Your task to perform on an android device: set default search engine in the chrome app Image 0: 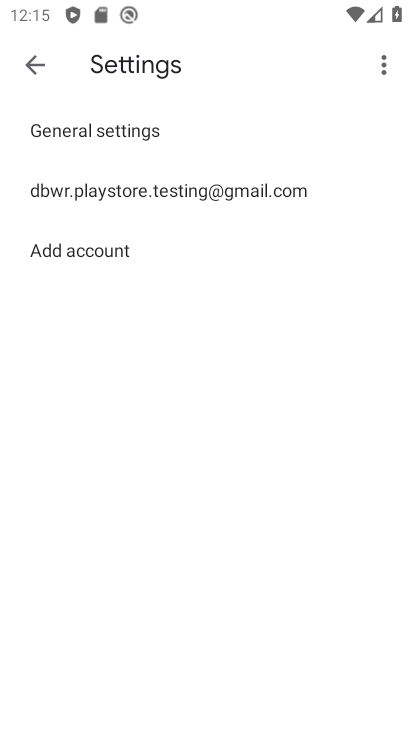
Step 0: press home button
Your task to perform on an android device: set default search engine in the chrome app Image 1: 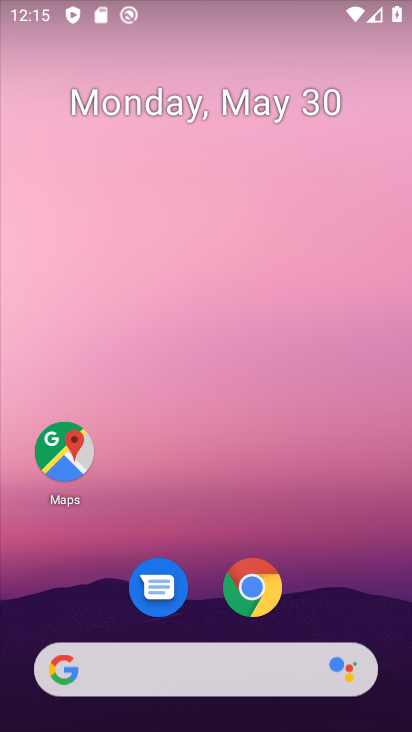
Step 1: click (242, 580)
Your task to perform on an android device: set default search engine in the chrome app Image 2: 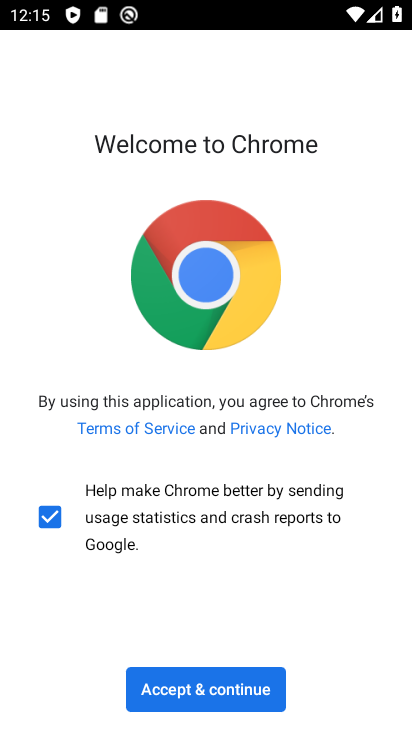
Step 2: click (228, 686)
Your task to perform on an android device: set default search engine in the chrome app Image 3: 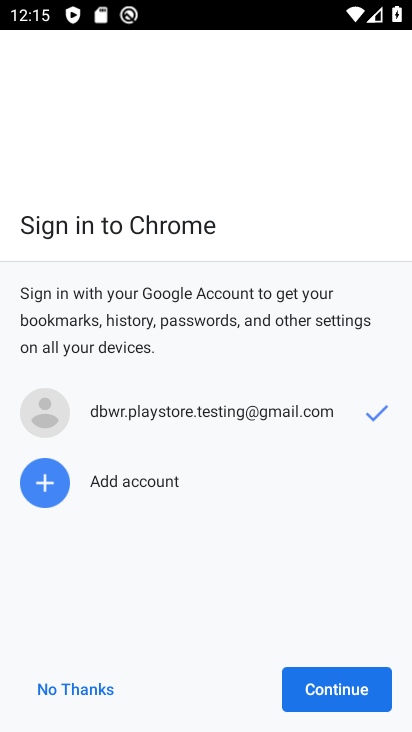
Step 3: click (324, 696)
Your task to perform on an android device: set default search engine in the chrome app Image 4: 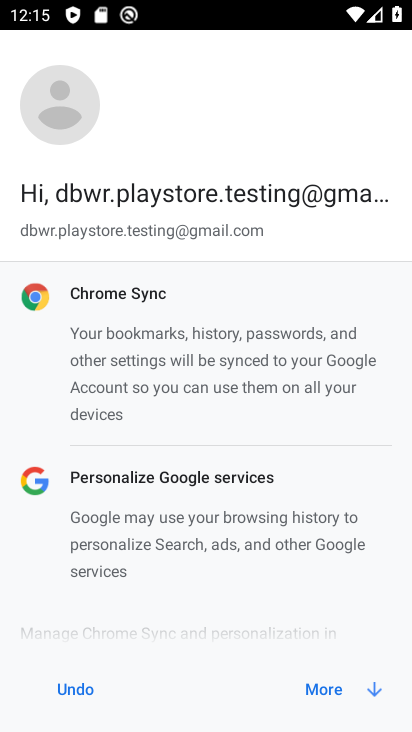
Step 4: click (324, 696)
Your task to perform on an android device: set default search engine in the chrome app Image 5: 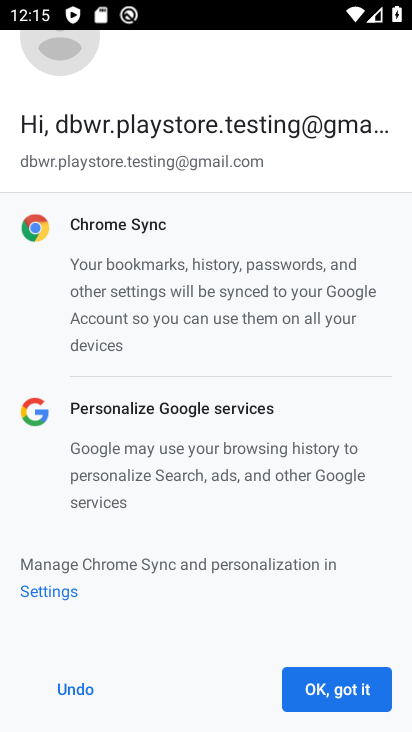
Step 5: click (324, 696)
Your task to perform on an android device: set default search engine in the chrome app Image 6: 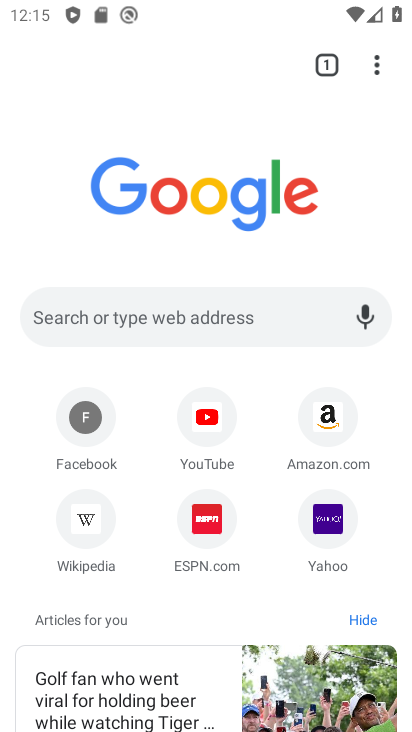
Step 6: click (379, 58)
Your task to perform on an android device: set default search engine in the chrome app Image 7: 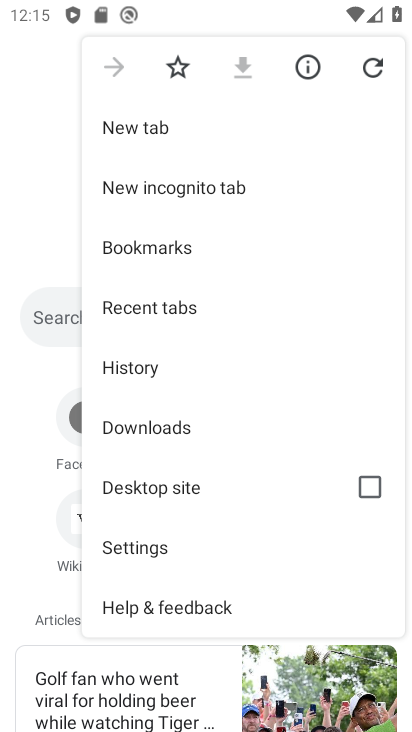
Step 7: click (147, 559)
Your task to perform on an android device: set default search engine in the chrome app Image 8: 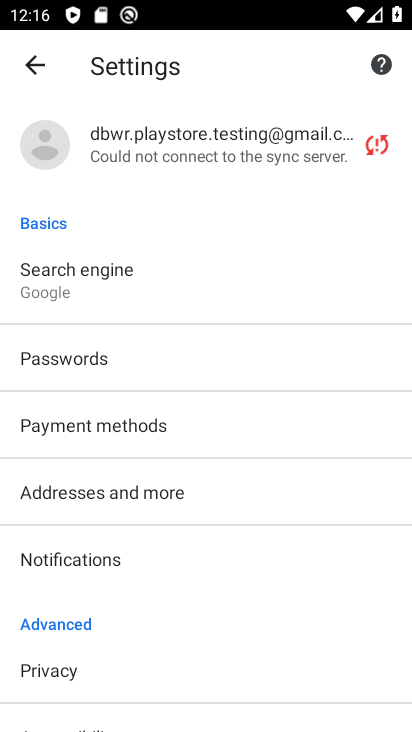
Step 8: click (119, 275)
Your task to perform on an android device: set default search engine in the chrome app Image 9: 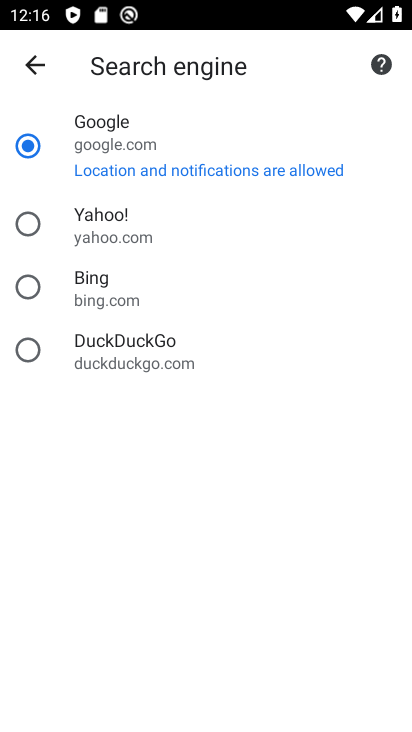
Step 9: click (121, 230)
Your task to perform on an android device: set default search engine in the chrome app Image 10: 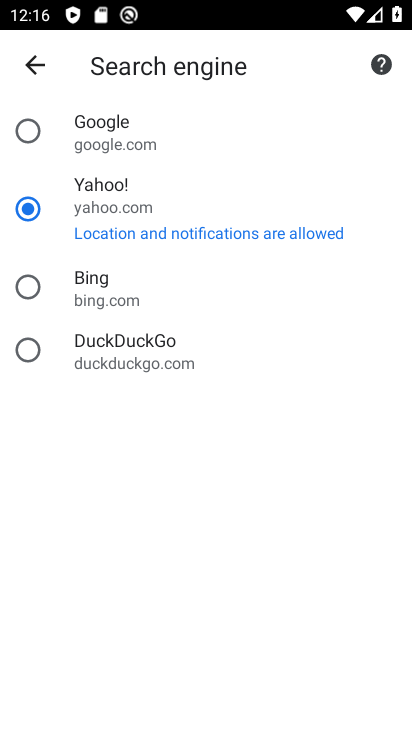
Step 10: task complete